Your task to perform on an android device: set the stopwatch Image 0: 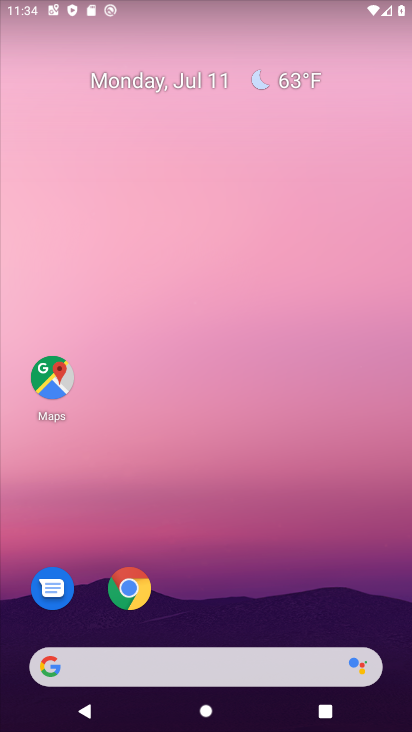
Step 0: drag from (259, 729) to (234, 180)
Your task to perform on an android device: set the stopwatch Image 1: 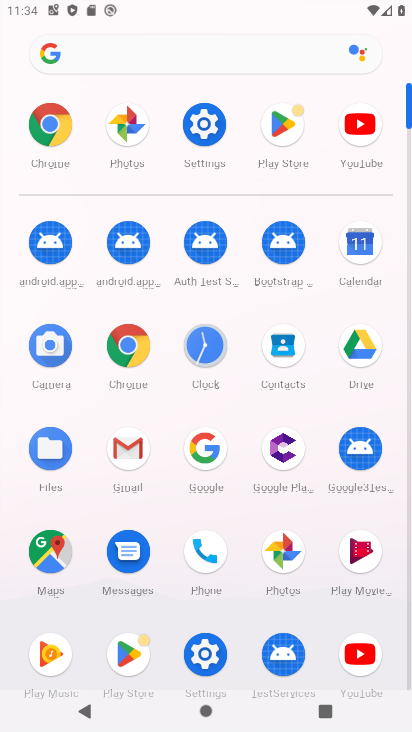
Step 1: click (212, 348)
Your task to perform on an android device: set the stopwatch Image 2: 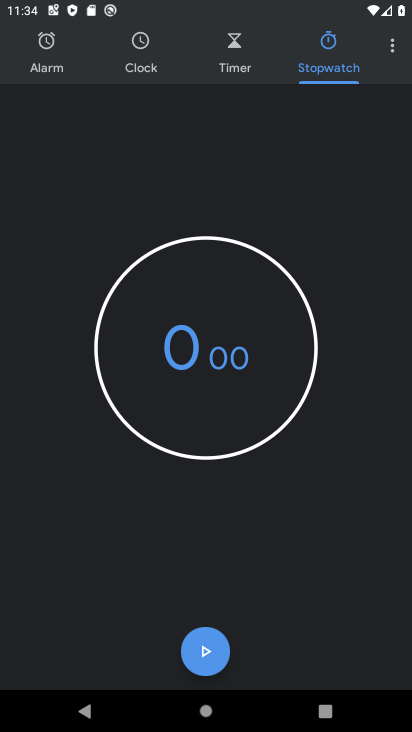
Step 2: click (207, 353)
Your task to perform on an android device: set the stopwatch Image 3: 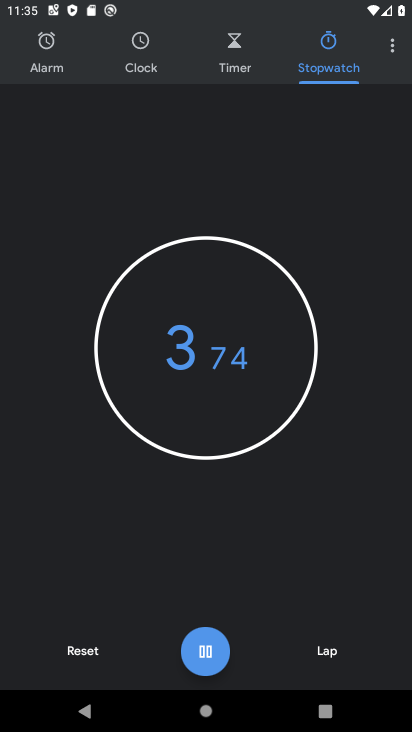
Step 3: type "66"
Your task to perform on an android device: set the stopwatch Image 4: 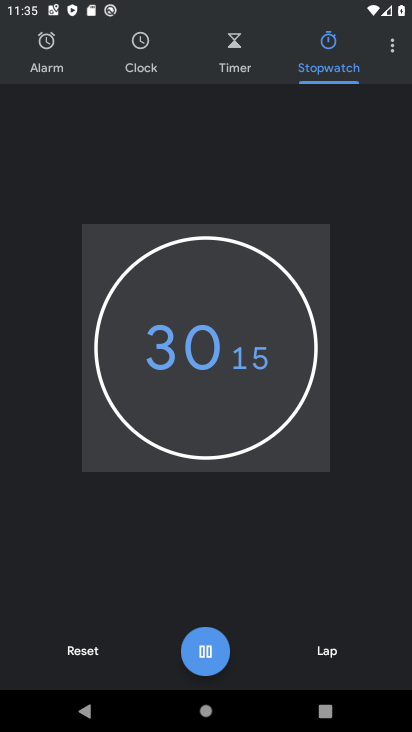
Step 4: task complete